Your task to perform on an android device: toggle javascript in the chrome app Image 0: 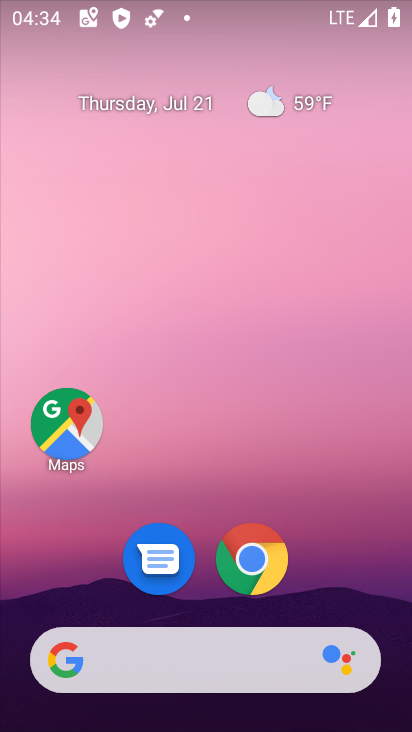
Step 0: click (263, 562)
Your task to perform on an android device: toggle javascript in the chrome app Image 1: 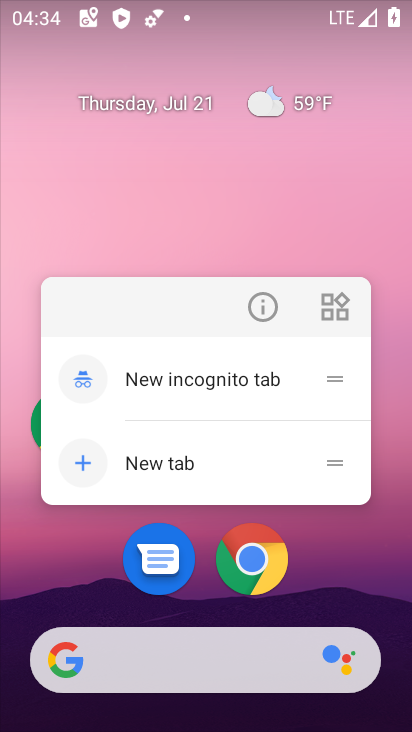
Step 1: click (266, 572)
Your task to perform on an android device: toggle javascript in the chrome app Image 2: 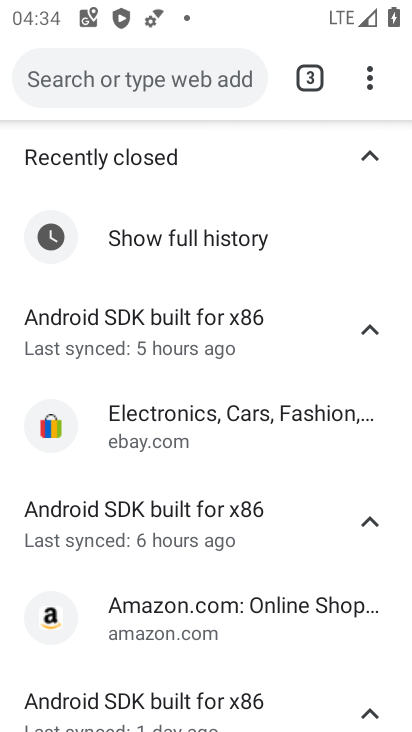
Step 2: drag from (374, 79) to (101, 613)
Your task to perform on an android device: toggle javascript in the chrome app Image 3: 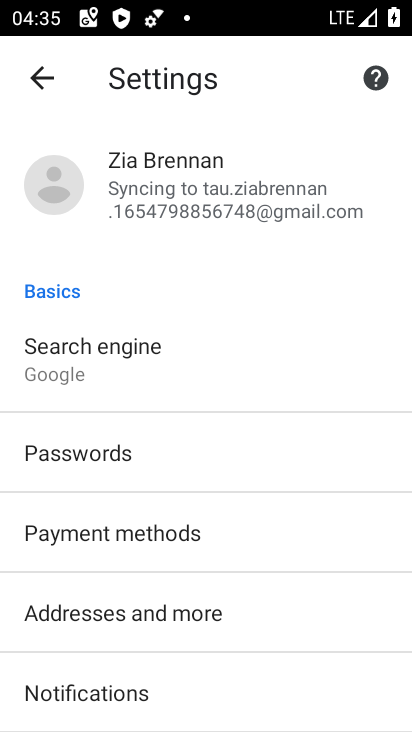
Step 3: drag from (137, 655) to (213, 142)
Your task to perform on an android device: toggle javascript in the chrome app Image 4: 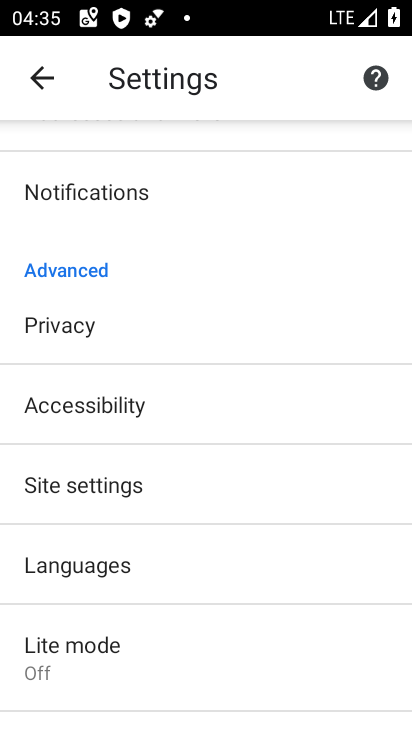
Step 4: click (106, 478)
Your task to perform on an android device: toggle javascript in the chrome app Image 5: 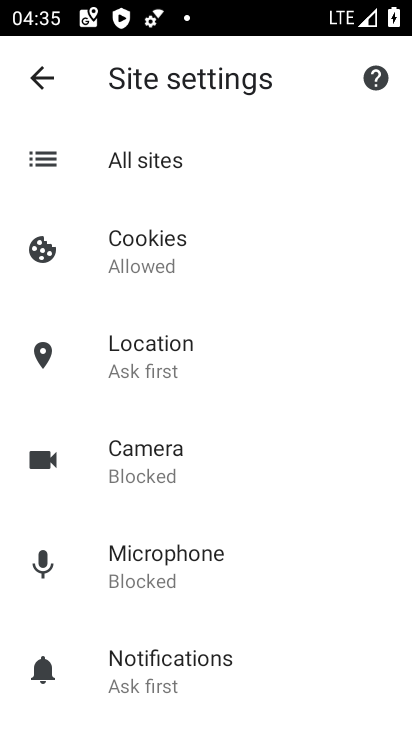
Step 5: drag from (167, 634) to (265, 60)
Your task to perform on an android device: toggle javascript in the chrome app Image 6: 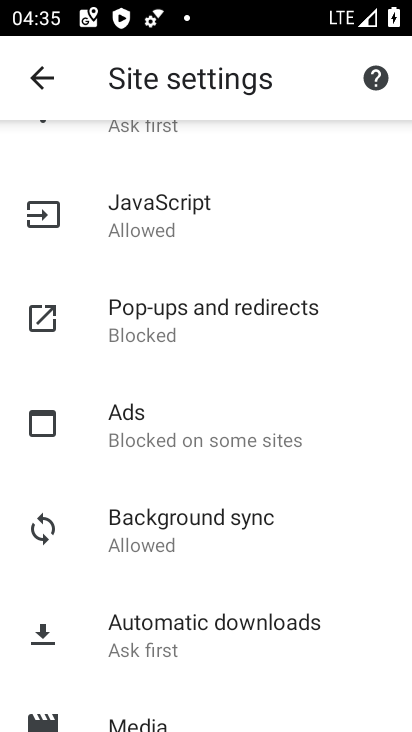
Step 6: click (159, 202)
Your task to perform on an android device: toggle javascript in the chrome app Image 7: 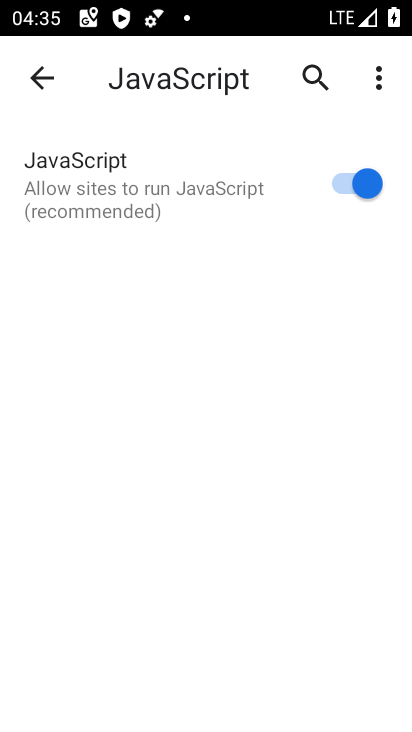
Step 7: task complete